Your task to perform on an android device: change the upload size in google photos Image 0: 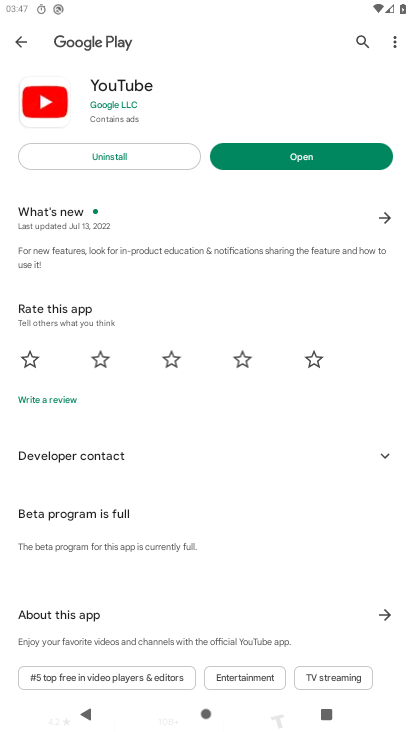
Step 0: press home button
Your task to perform on an android device: change the upload size in google photos Image 1: 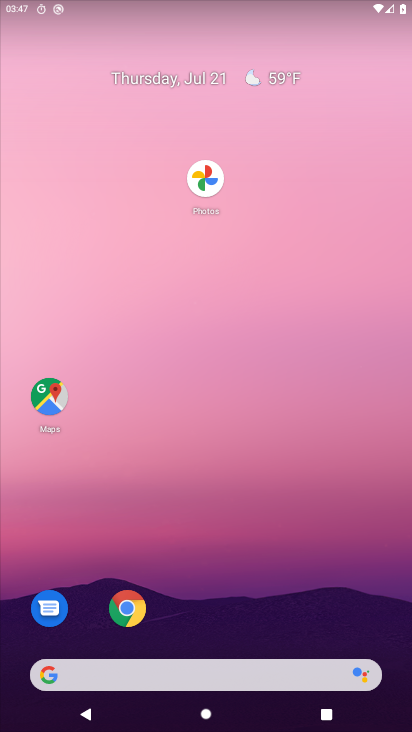
Step 1: drag from (209, 628) to (218, 137)
Your task to perform on an android device: change the upload size in google photos Image 2: 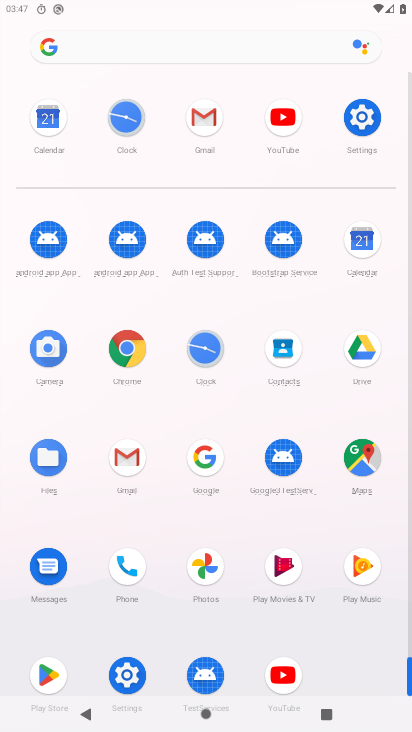
Step 2: click (202, 556)
Your task to perform on an android device: change the upload size in google photos Image 3: 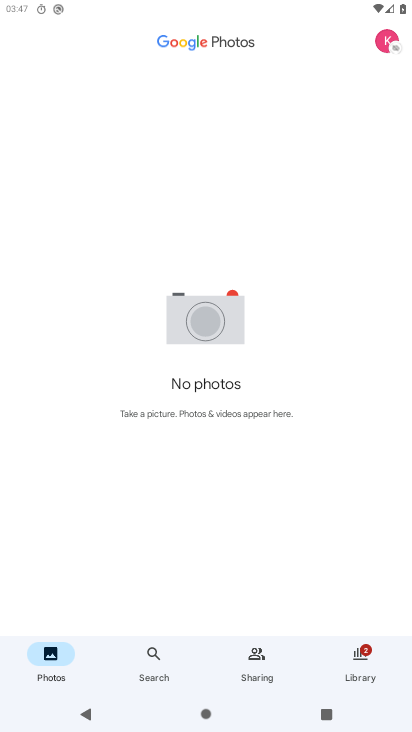
Step 3: click (389, 37)
Your task to perform on an android device: change the upload size in google photos Image 4: 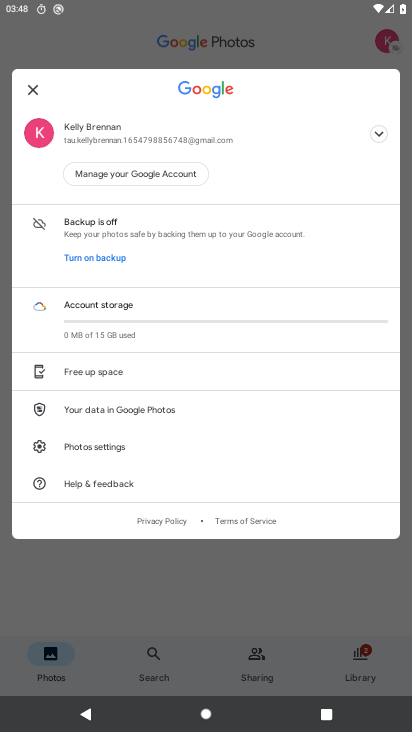
Step 4: click (112, 226)
Your task to perform on an android device: change the upload size in google photos Image 5: 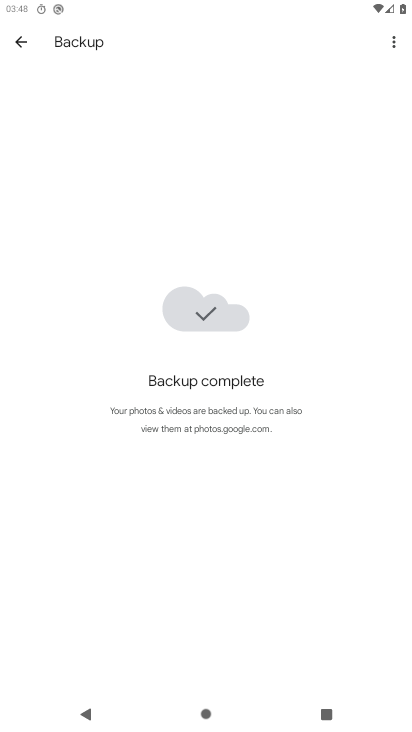
Step 5: click (391, 33)
Your task to perform on an android device: change the upload size in google photos Image 6: 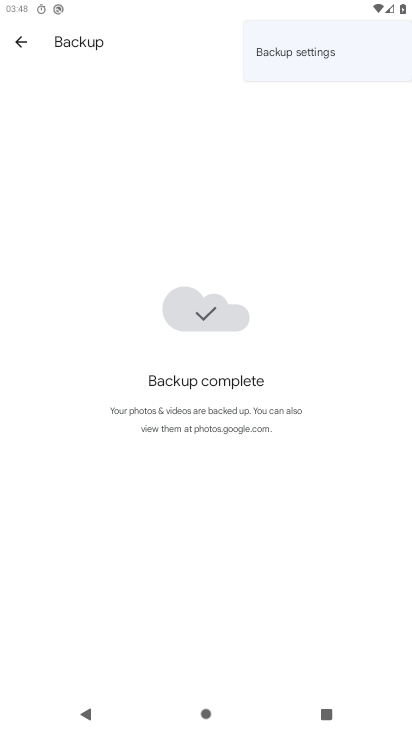
Step 6: click (292, 52)
Your task to perform on an android device: change the upload size in google photos Image 7: 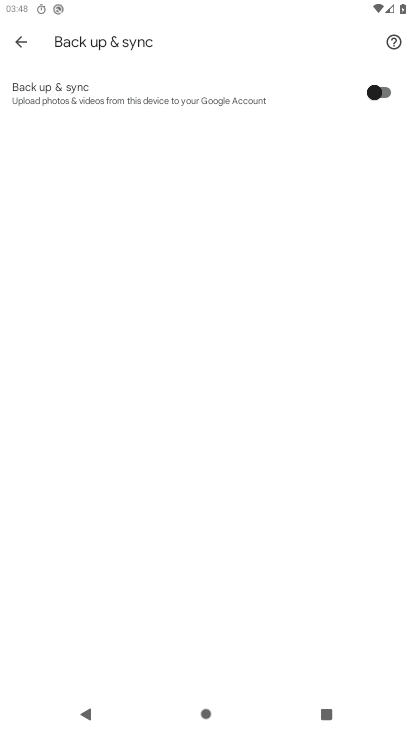
Step 7: click (374, 89)
Your task to perform on an android device: change the upload size in google photos Image 8: 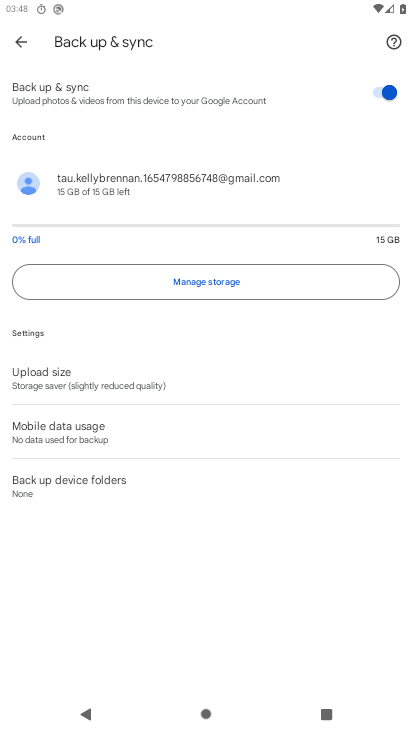
Step 8: click (77, 375)
Your task to perform on an android device: change the upload size in google photos Image 9: 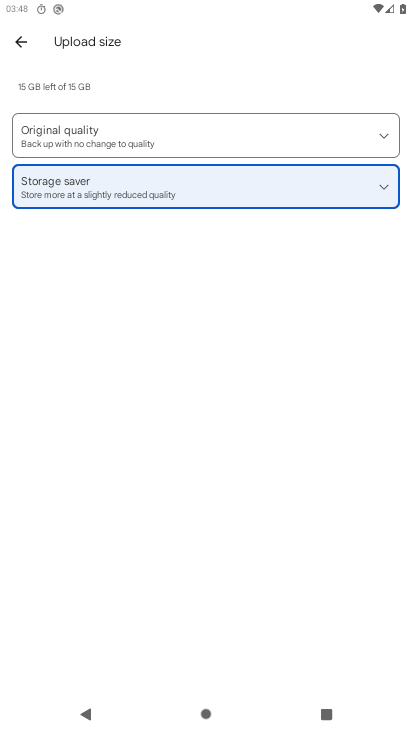
Step 9: click (93, 178)
Your task to perform on an android device: change the upload size in google photos Image 10: 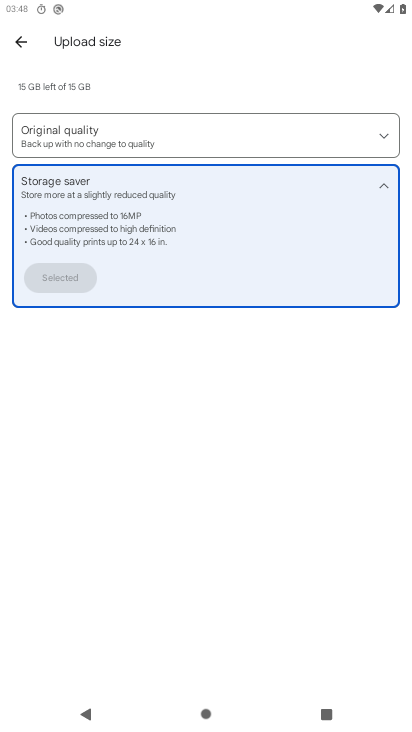
Step 10: task complete